Your task to perform on an android device: turn off location Image 0: 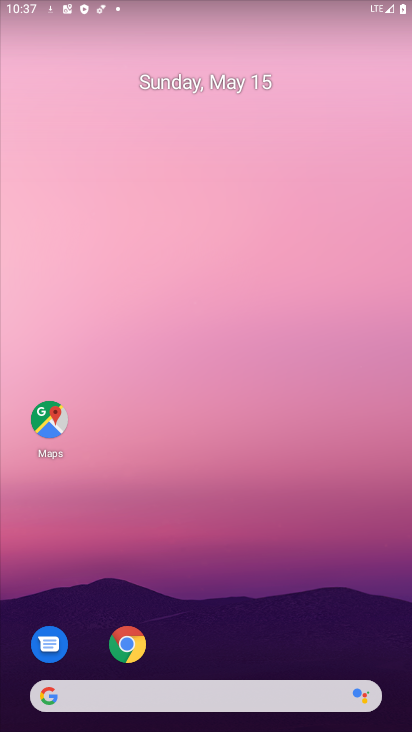
Step 0: drag from (268, 710) to (217, 340)
Your task to perform on an android device: turn off location Image 1: 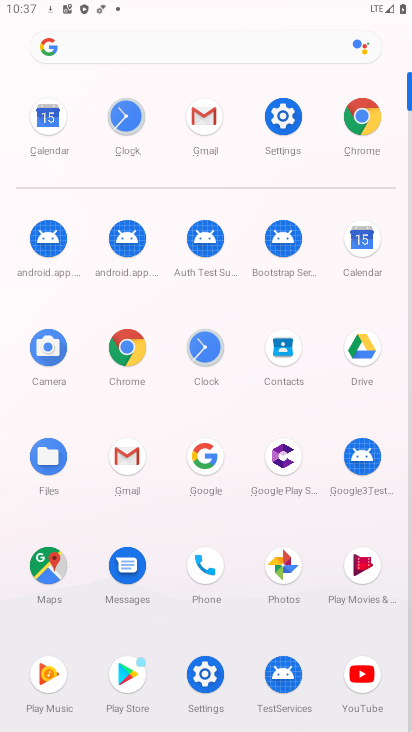
Step 1: click (287, 123)
Your task to perform on an android device: turn off location Image 2: 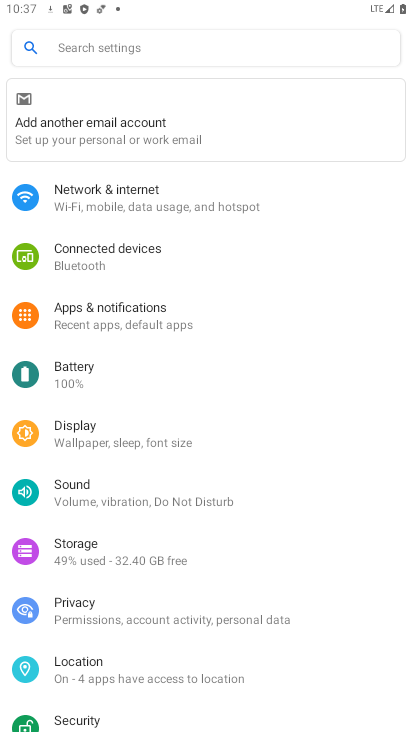
Step 2: click (184, 37)
Your task to perform on an android device: turn off location Image 3: 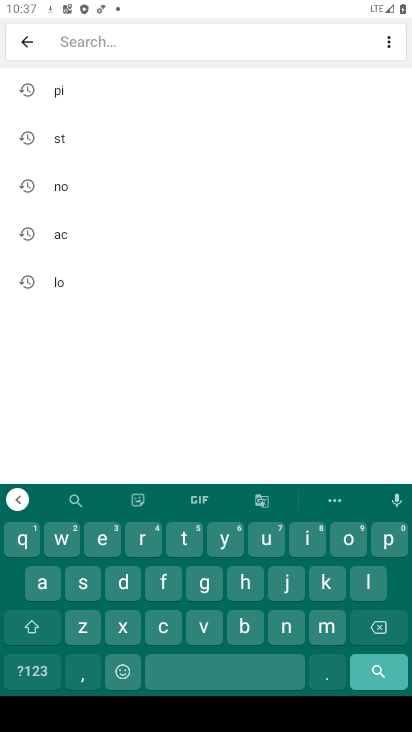
Step 3: click (375, 588)
Your task to perform on an android device: turn off location Image 4: 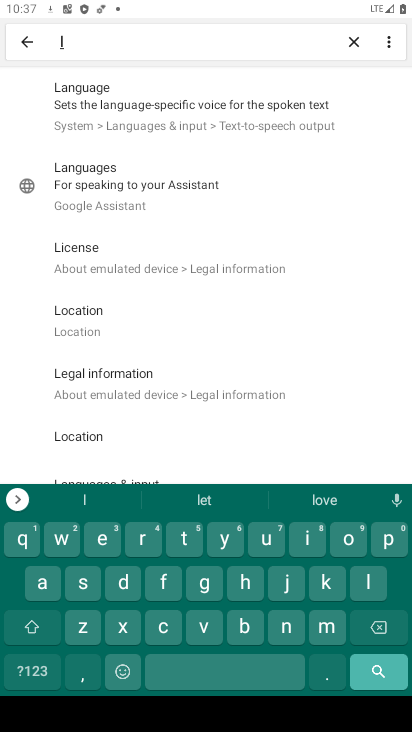
Step 4: click (114, 320)
Your task to perform on an android device: turn off location Image 5: 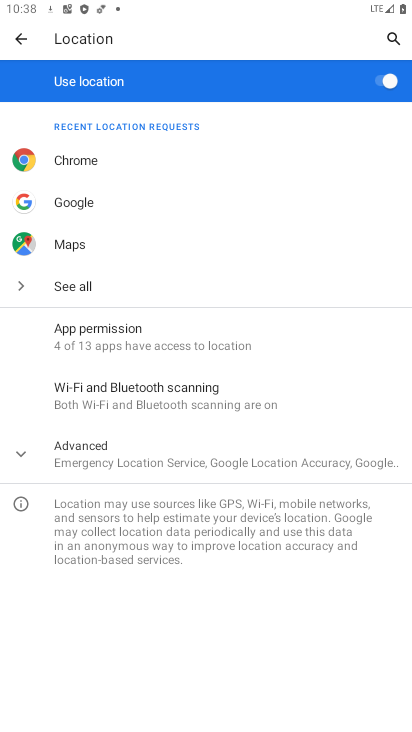
Step 5: click (385, 77)
Your task to perform on an android device: turn off location Image 6: 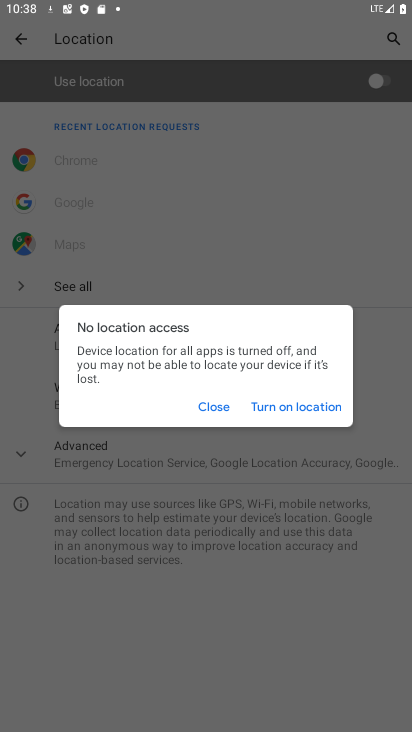
Step 6: task complete